Your task to perform on an android device: Open Maps and search for coffee Image 0: 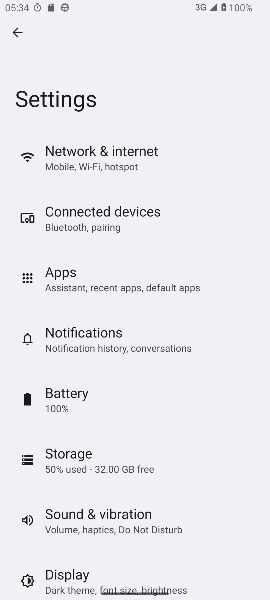
Step 0: press home button
Your task to perform on an android device: Open Maps and search for coffee Image 1: 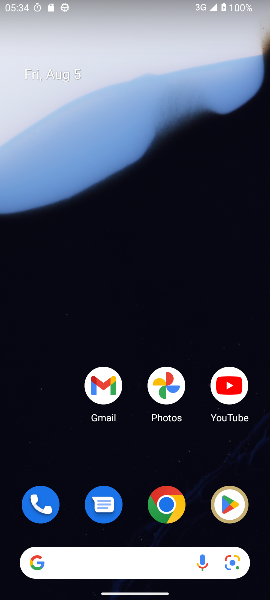
Step 1: drag from (42, 578) to (153, 83)
Your task to perform on an android device: Open Maps and search for coffee Image 2: 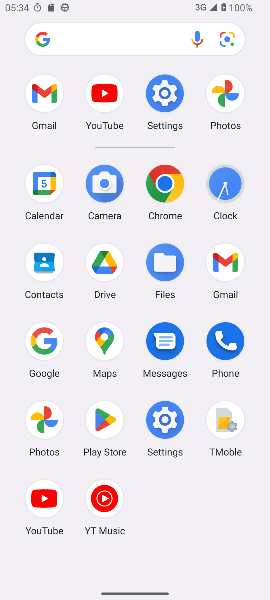
Step 2: click (99, 344)
Your task to perform on an android device: Open Maps and search for coffee Image 3: 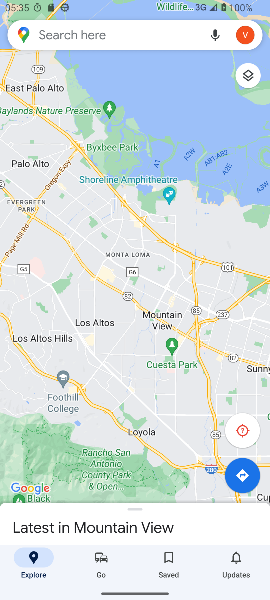
Step 3: click (55, 34)
Your task to perform on an android device: Open Maps and search for coffee Image 4: 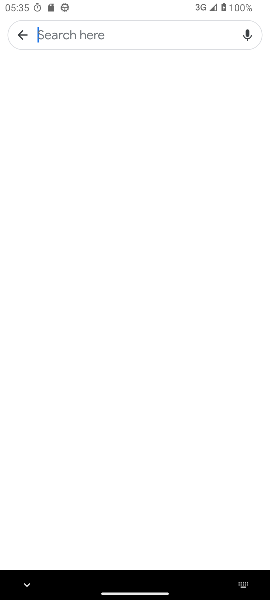
Step 4: type "coffee"
Your task to perform on an android device: Open Maps and search for coffee Image 5: 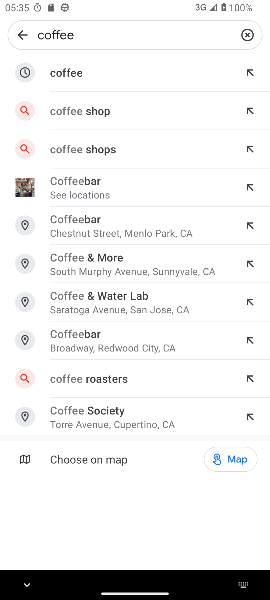
Step 5: click (56, 68)
Your task to perform on an android device: Open Maps and search for coffee Image 6: 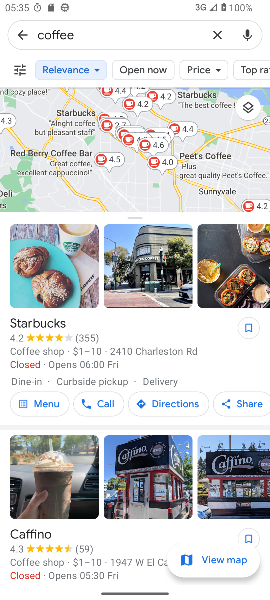
Step 6: task complete